Your task to perform on an android device: Open Google Chrome and open the bookmarks view Image 0: 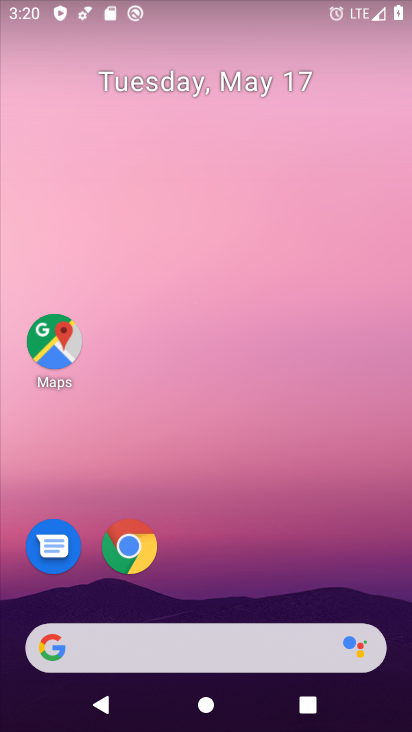
Step 0: press home button
Your task to perform on an android device: Open Google Chrome and open the bookmarks view Image 1: 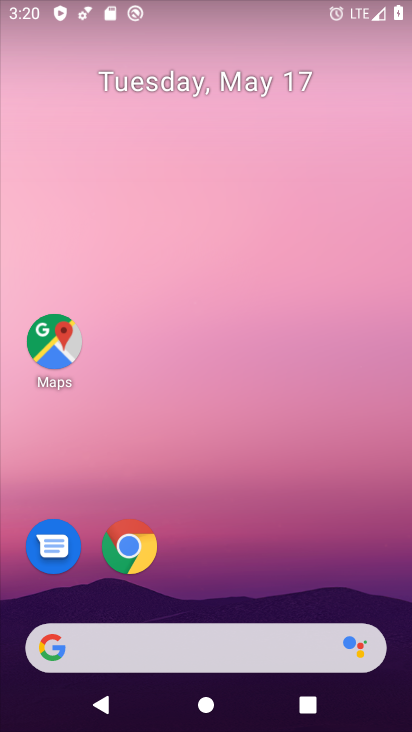
Step 1: click (123, 557)
Your task to perform on an android device: Open Google Chrome and open the bookmarks view Image 2: 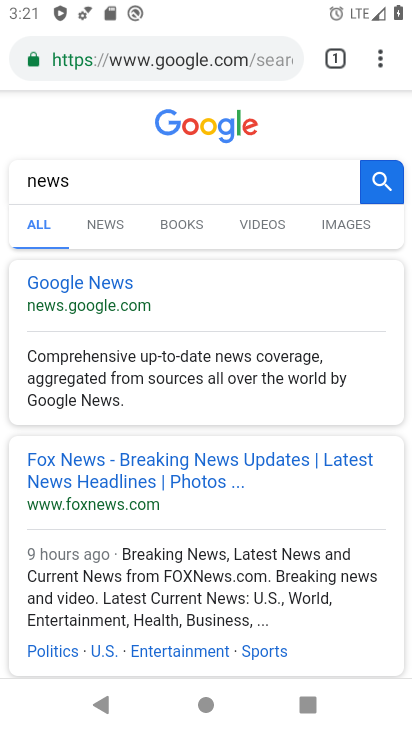
Step 2: task complete